Your task to perform on an android device: Search for the best gaming monitor on Best Buy Image 0: 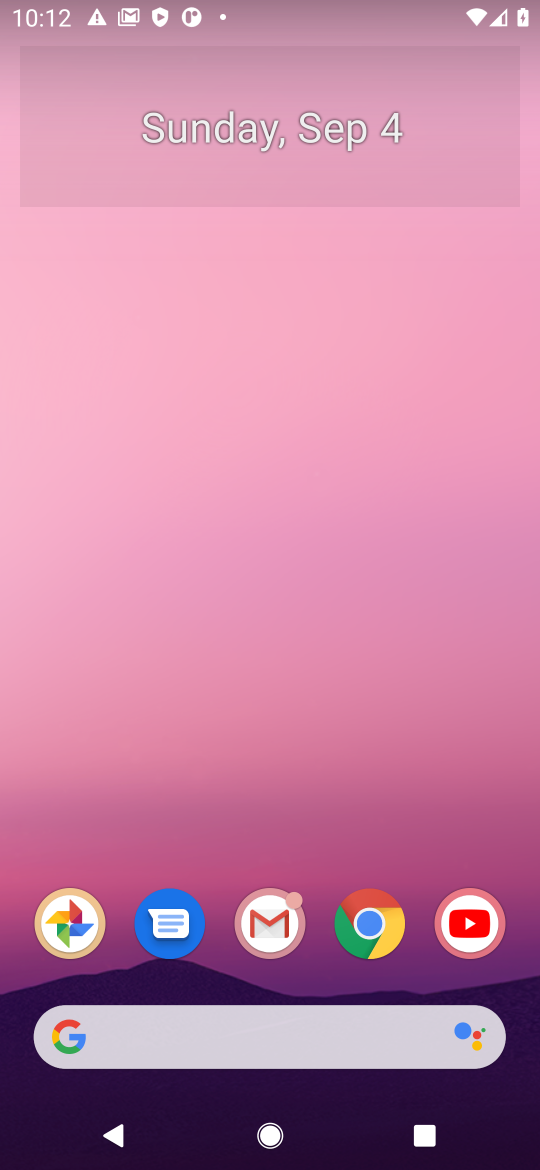
Step 0: click (387, 1032)
Your task to perform on an android device: Search for the best gaming monitor on Best Buy Image 1: 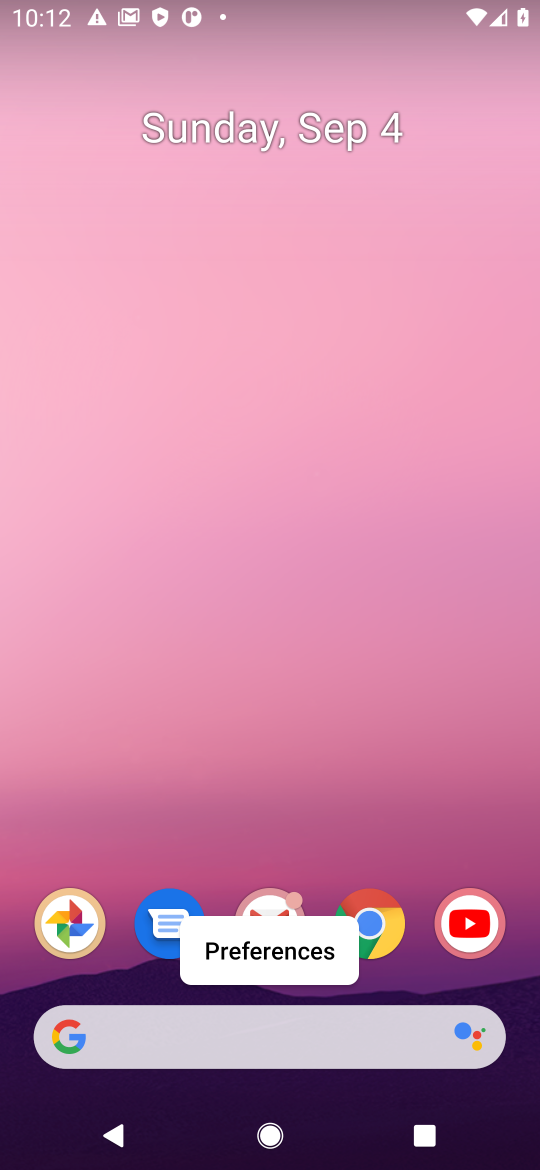
Step 1: click (332, 1032)
Your task to perform on an android device: Search for the best gaming monitor on Best Buy Image 2: 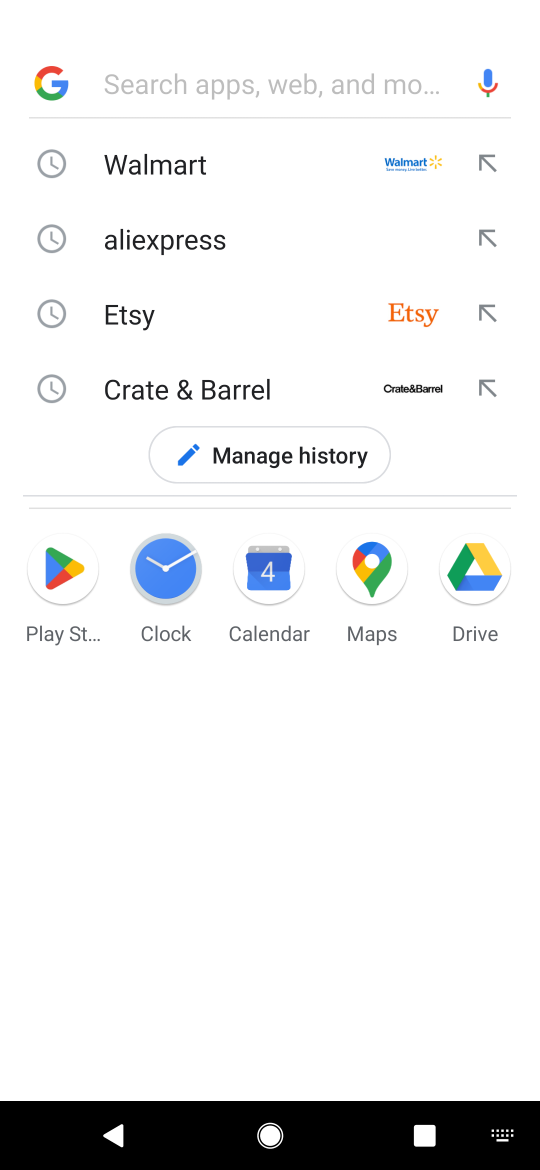
Step 2: type "best buy"
Your task to perform on an android device: Search for the best gaming monitor on Best Buy Image 3: 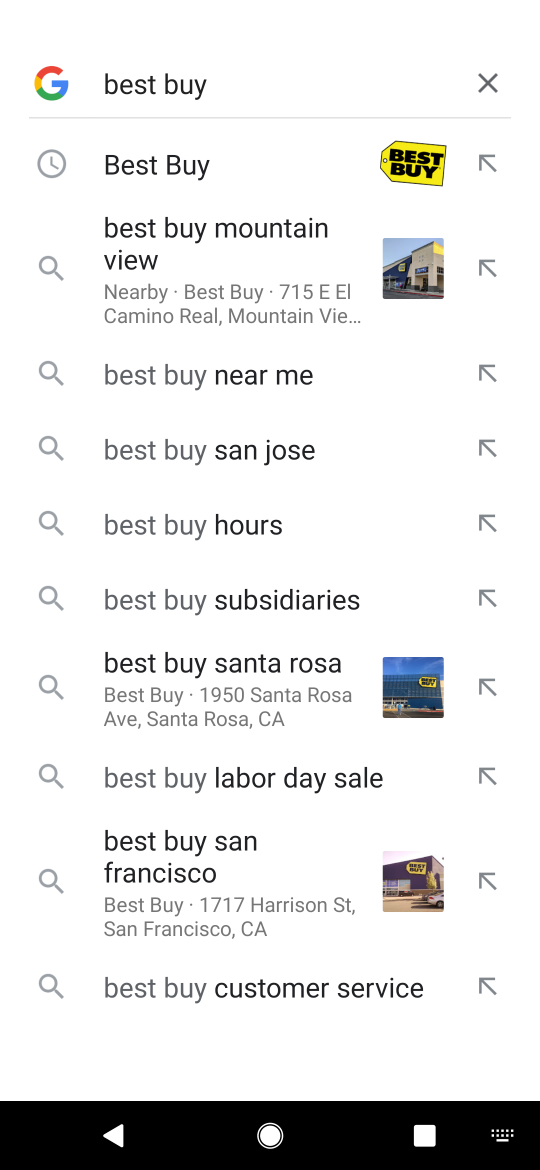
Step 3: press enter
Your task to perform on an android device: Search for the best gaming monitor on Best Buy Image 4: 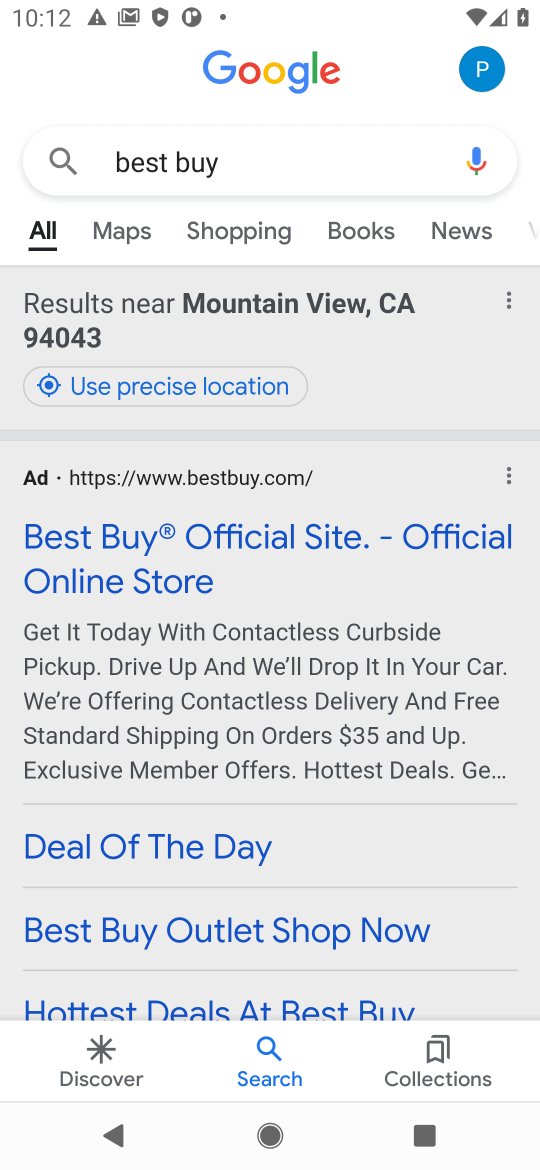
Step 4: click (250, 534)
Your task to perform on an android device: Search for the best gaming monitor on Best Buy Image 5: 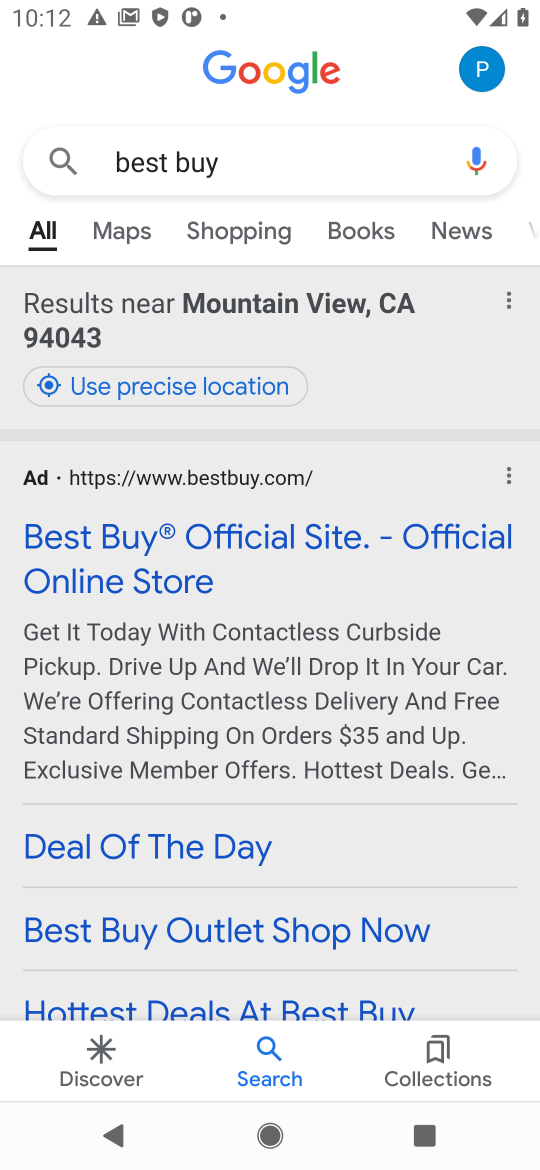
Step 5: click (191, 536)
Your task to perform on an android device: Search for the best gaming monitor on Best Buy Image 6: 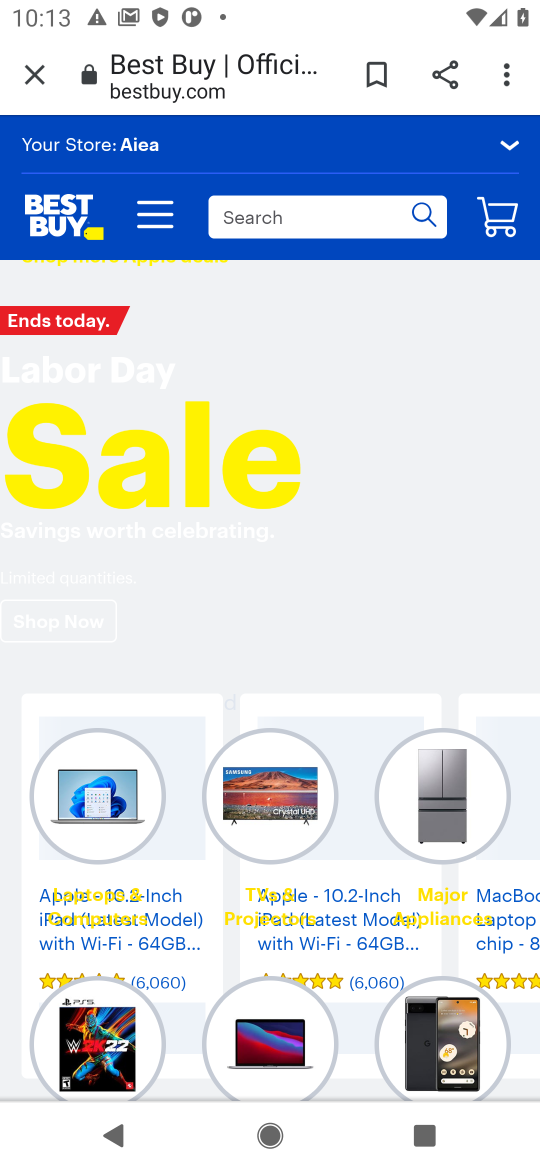
Step 6: click (296, 208)
Your task to perform on an android device: Search for the best gaming monitor on Best Buy Image 7: 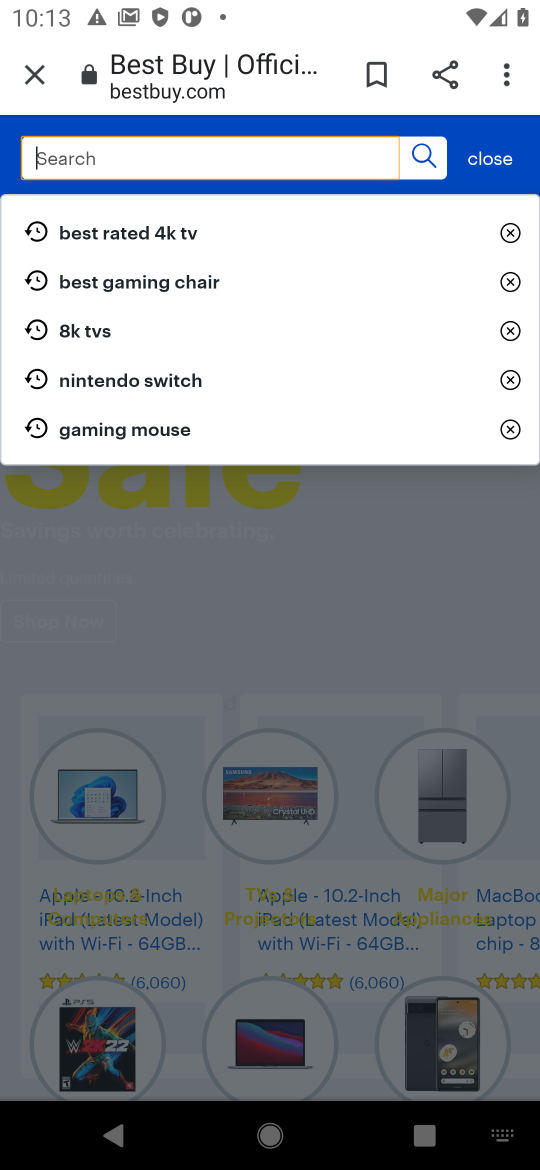
Step 7: press enter
Your task to perform on an android device: Search for the best gaming monitor on Best Buy Image 8: 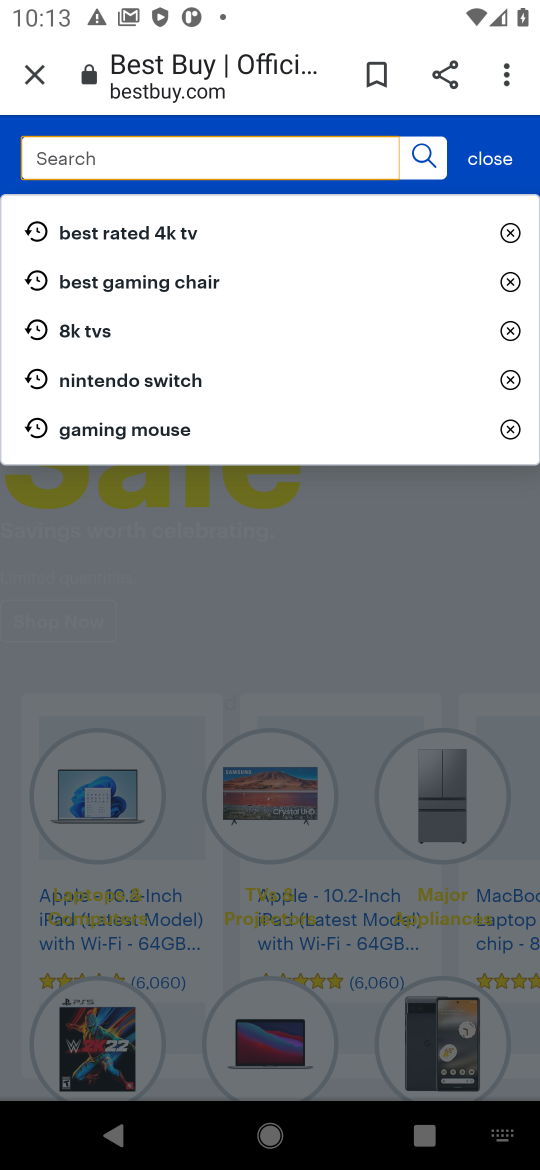
Step 8: type "best gaming monitor"
Your task to perform on an android device: Search for the best gaming monitor on Best Buy Image 9: 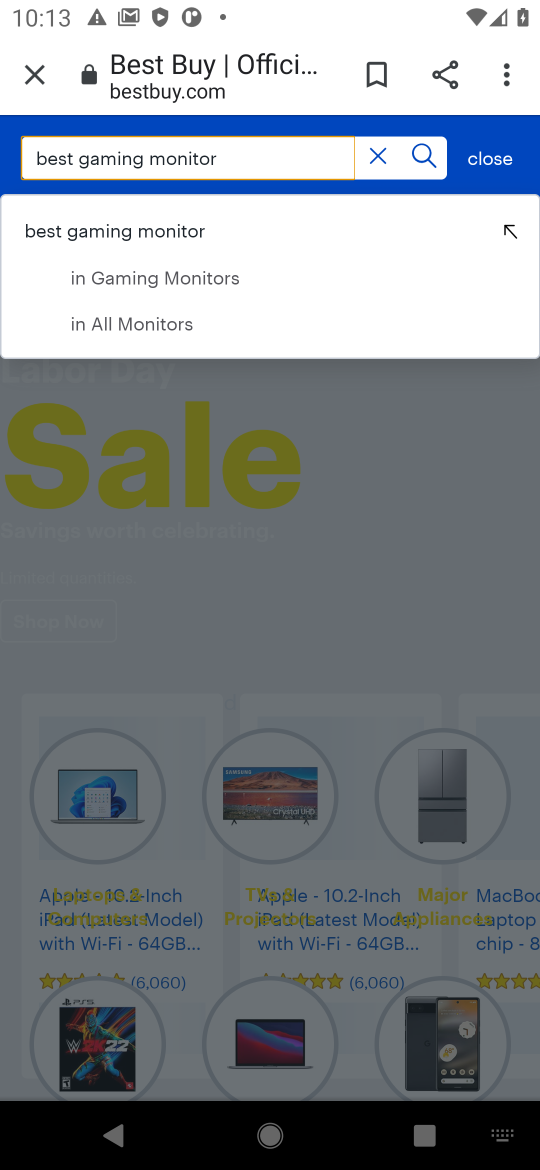
Step 9: click (427, 156)
Your task to perform on an android device: Search for the best gaming monitor on Best Buy Image 10: 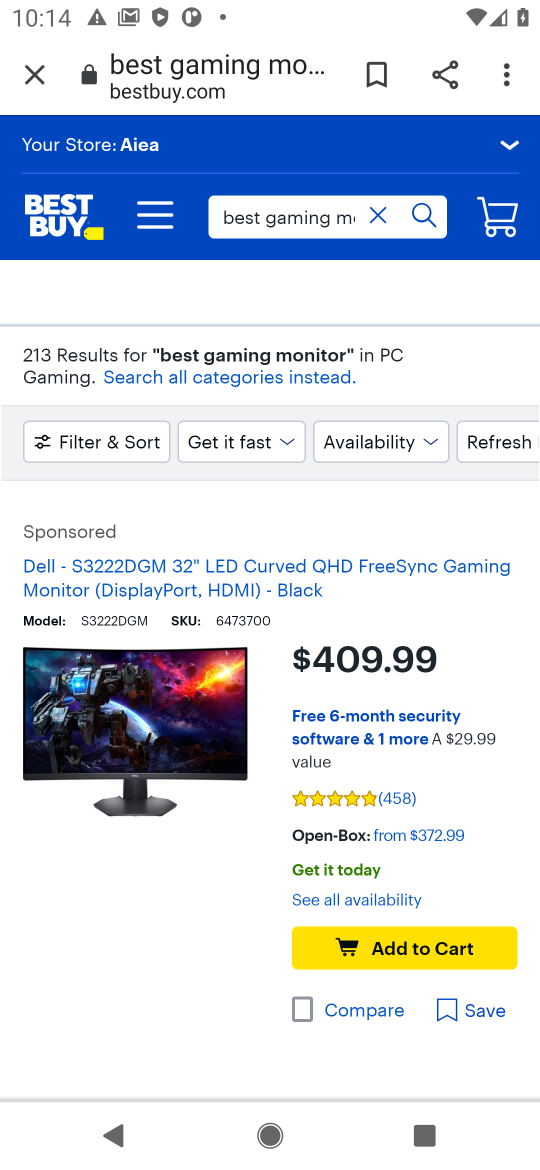
Step 10: task complete